Your task to perform on an android device: delete location history Image 0: 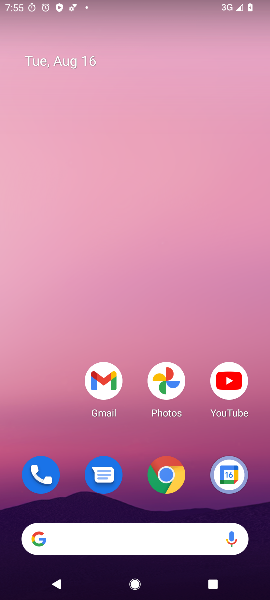
Step 0: drag from (204, 488) to (89, 6)
Your task to perform on an android device: delete location history Image 1: 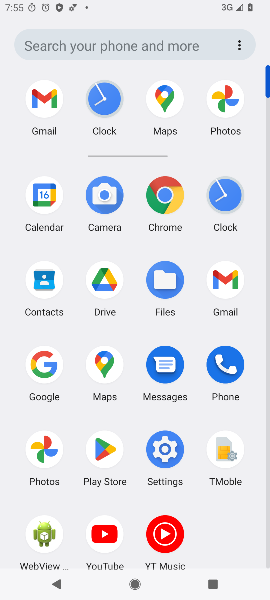
Step 1: click (158, 463)
Your task to perform on an android device: delete location history Image 2: 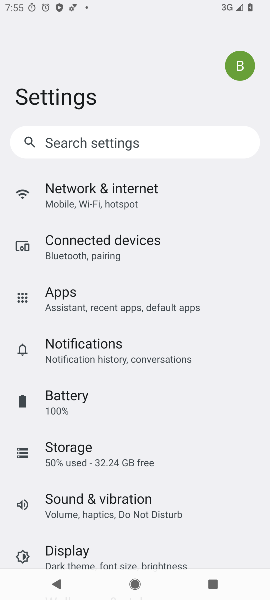
Step 2: drag from (93, 531) to (110, 116)
Your task to perform on an android device: delete location history Image 3: 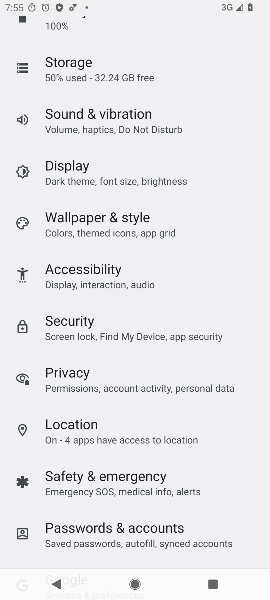
Step 3: click (77, 447)
Your task to perform on an android device: delete location history Image 4: 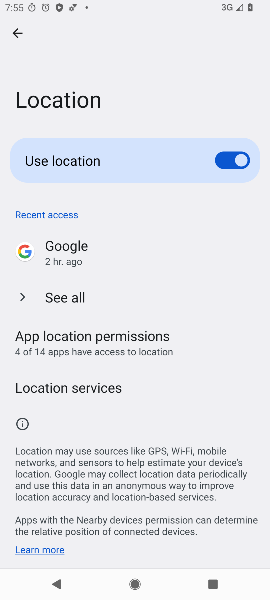
Step 4: click (70, 402)
Your task to perform on an android device: delete location history Image 5: 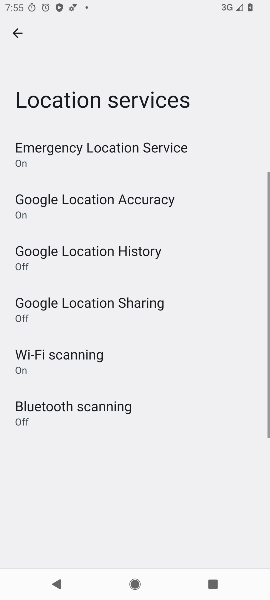
Step 5: click (135, 266)
Your task to perform on an android device: delete location history Image 6: 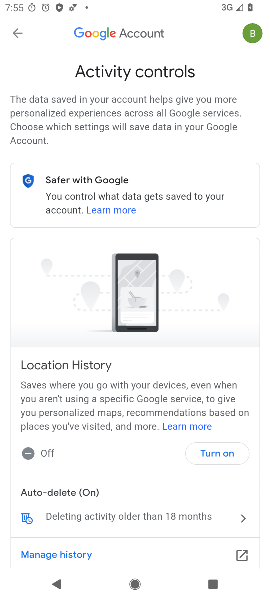
Step 6: click (139, 516)
Your task to perform on an android device: delete location history Image 7: 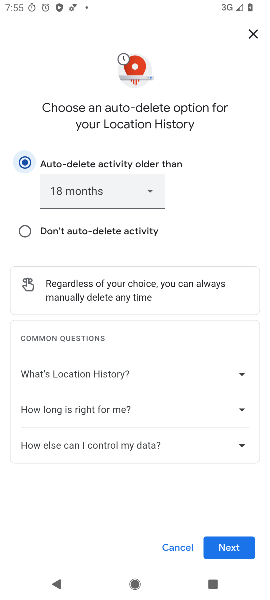
Step 7: click (232, 550)
Your task to perform on an android device: delete location history Image 8: 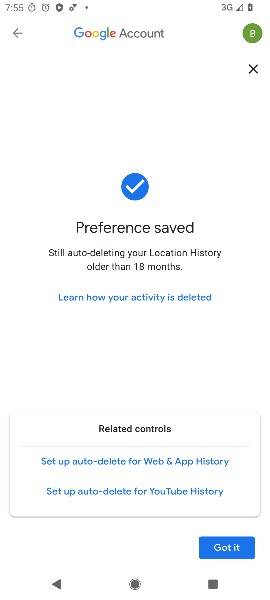
Step 8: task complete